Your task to perform on an android device: Go to ESPN.com Image 0: 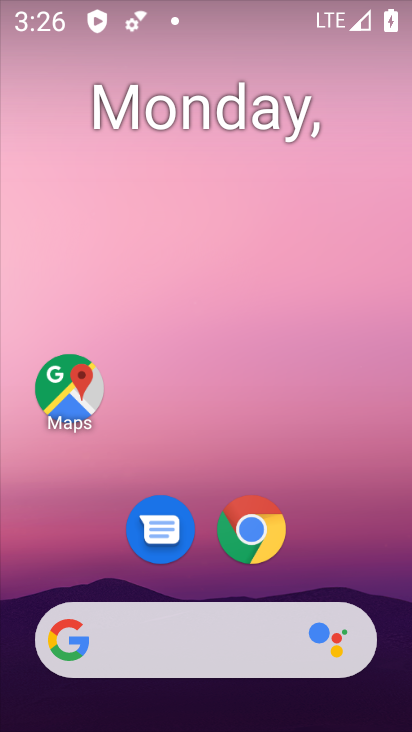
Step 0: click (271, 526)
Your task to perform on an android device: Go to ESPN.com Image 1: 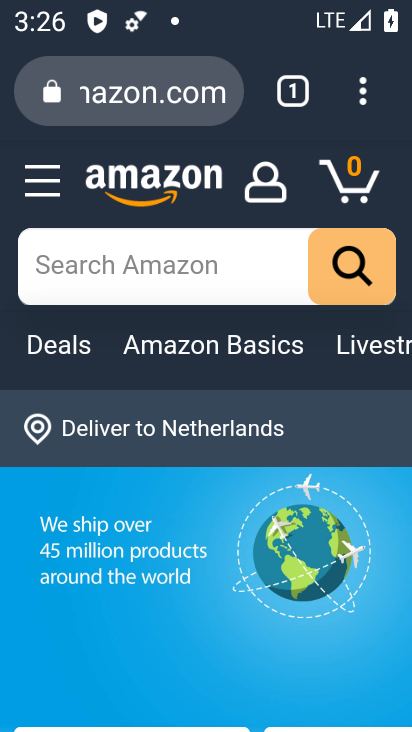
Step 1: click (182, 95)
Your task to perform on an android device: Go to ESPN.com Image 2: 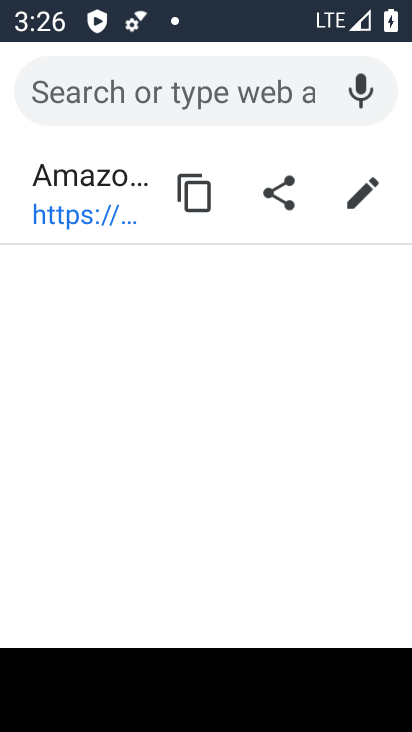
Step 2: type "ESPN.com"
Your task to perform on an android device: Go to ESPN.com Image 3: 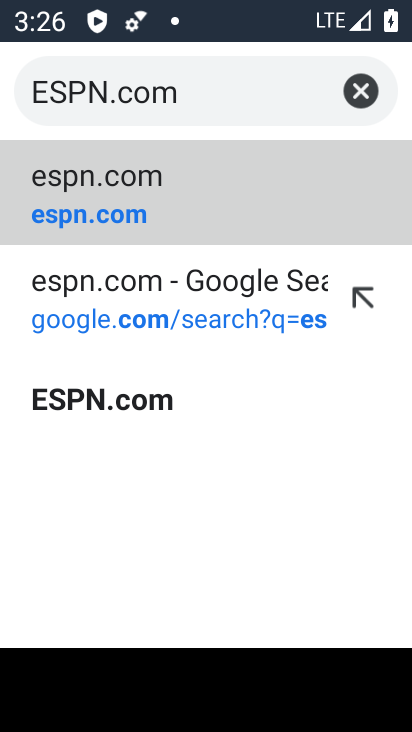
Step 3: click (234, 199)
Your task to perform on an android device: Go to ESPN.com Image 4: 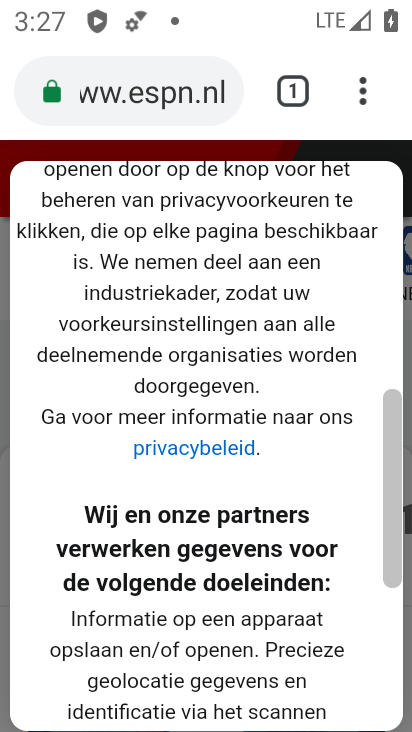
Step 4: task complete